Your task to perform on an android device: Open Chrome and go to the settings page Image 0: 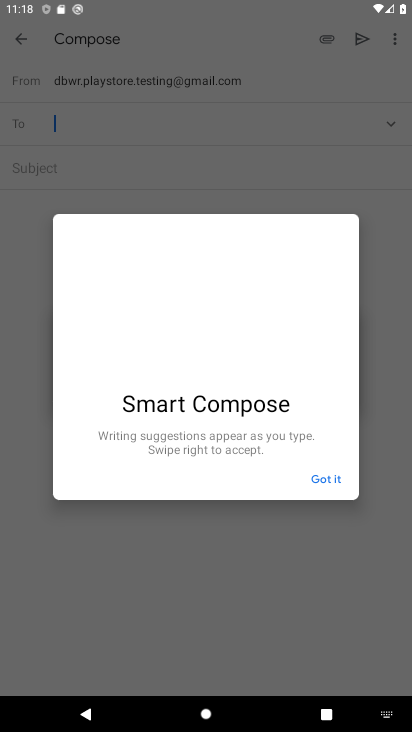
Step 0: press home button
Your task to perform on an android device: Open Chrome and go to the settings page Image 1: 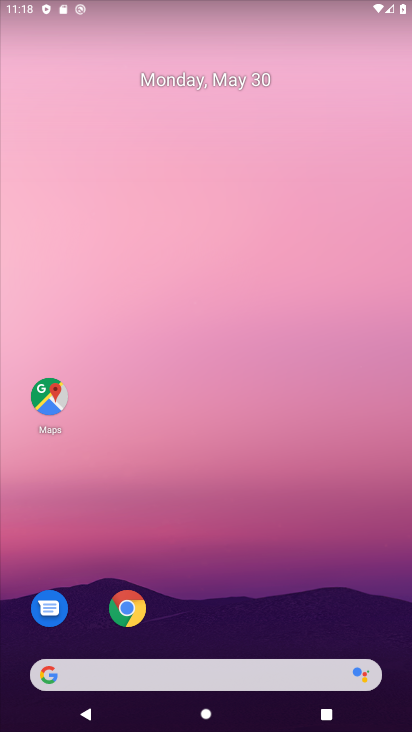
Step 1: click (129, 607)
Your task to perform on an android device: Open Chrome and go to the settings page Image 2: 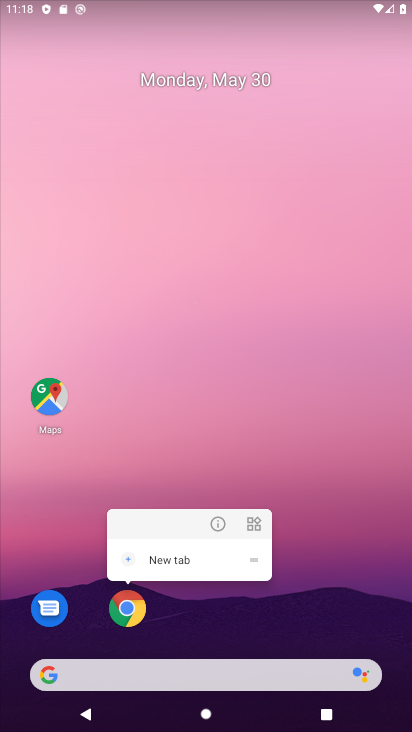
Step 2: click (129, 607)
Your task to perform on an android device: Open Chrome and go to the settings page Image 3: 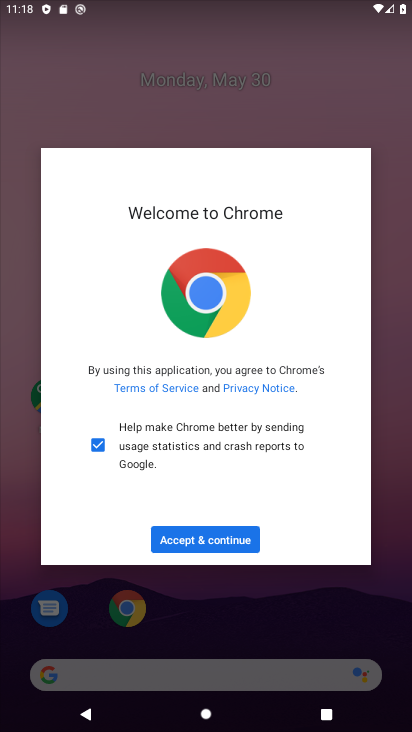
Step 3: click (240, 535)
Your task to perform on an android device: Open Chrome and go to the settings page Image 4: 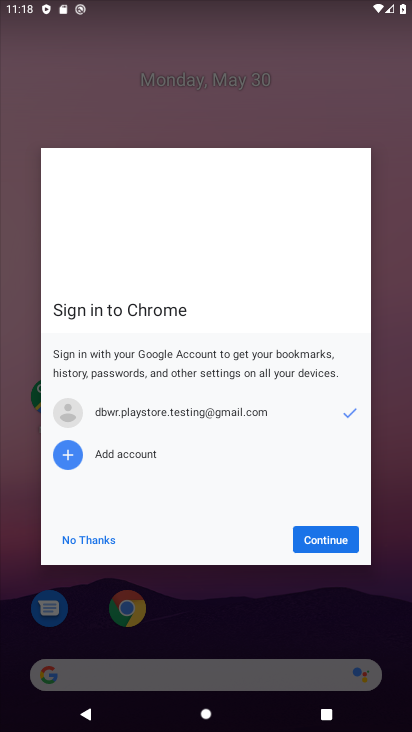
Step 4: click (328, 541)
Your task to perform on an android device: Open Chrome and go to the settings page Image 5: 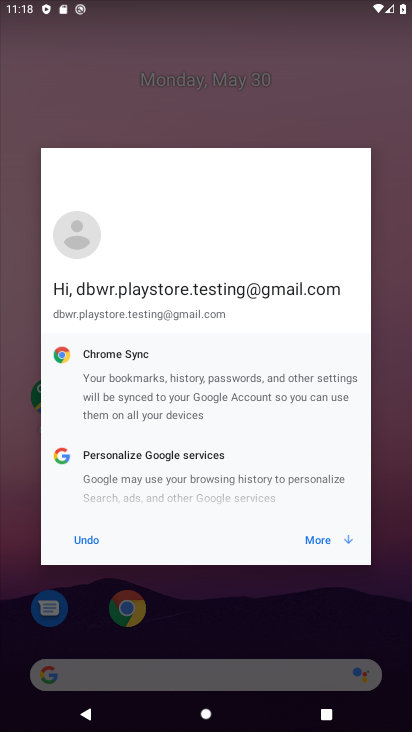
Step 5: click (328, 541)
Your task to perform on an android device: Open Chrome and go to the settings page Image 6: 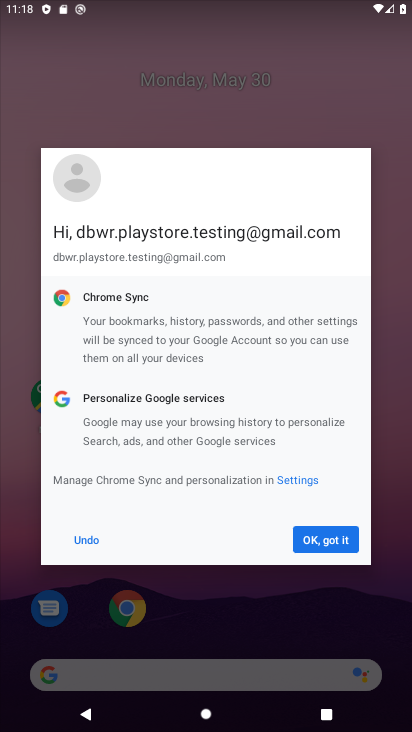
Step 6: click (328, 541)
Your task to perform on an android device: Open Chrome and go to the settings page Image 7: 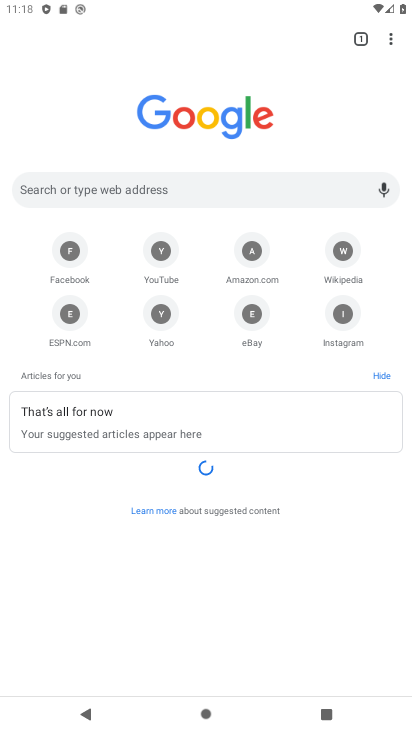
Step 7: click (389, 37)
Your task to perform on an android device: Open Chrome and go to the settings page Image 8: 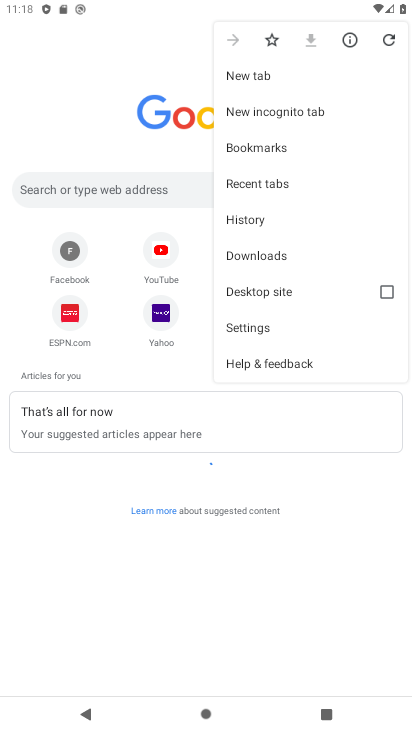
Step 8: click (276, 330)
Your task to perform on an android device: Open Chrome and go to the settings page Image 9: 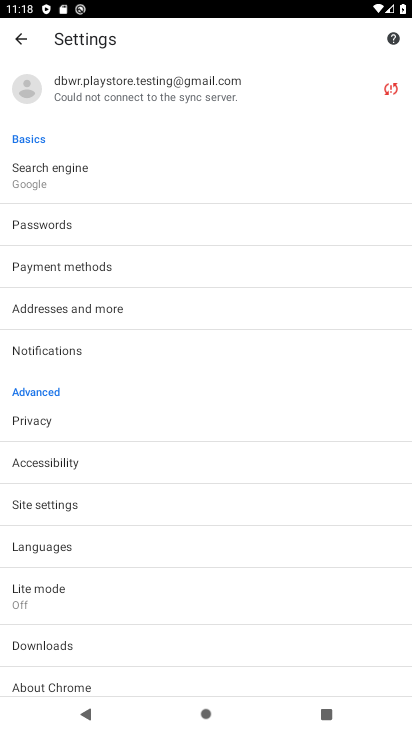
Step 9: task complete